Your task to perform on an android device: Open settings Image 0: 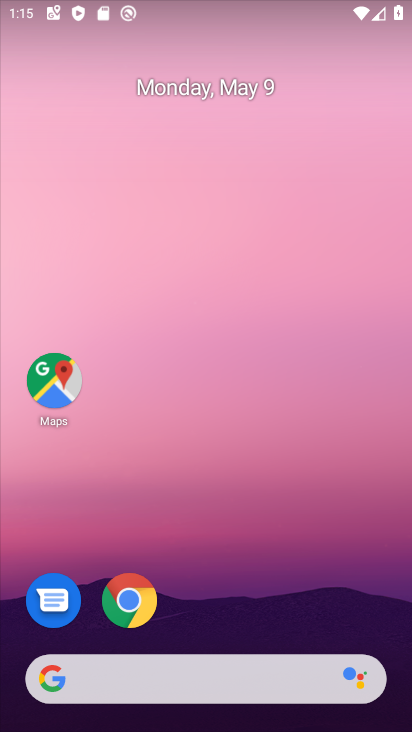
Step 0: drag from (245, 608) to (230, 132)
Your task to perform on an android device: Open settings Image 1: 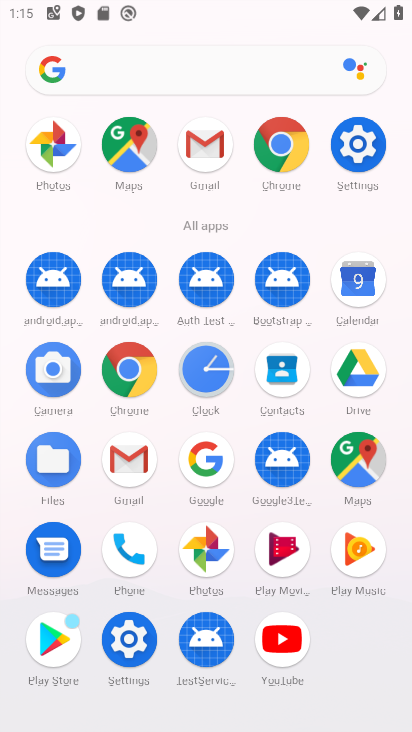
Step 1: click (346, 151)
Your task to perform on an android device: Open settings Image 2: 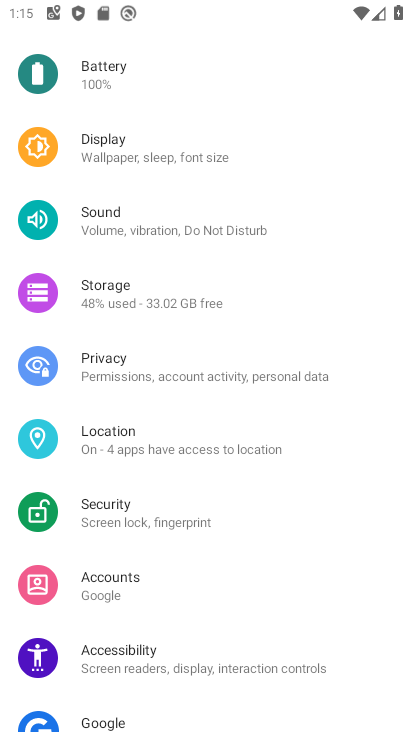
Step 2: task complete